Your task to perform on an android device: snooze an email in the gmail app Image 0: 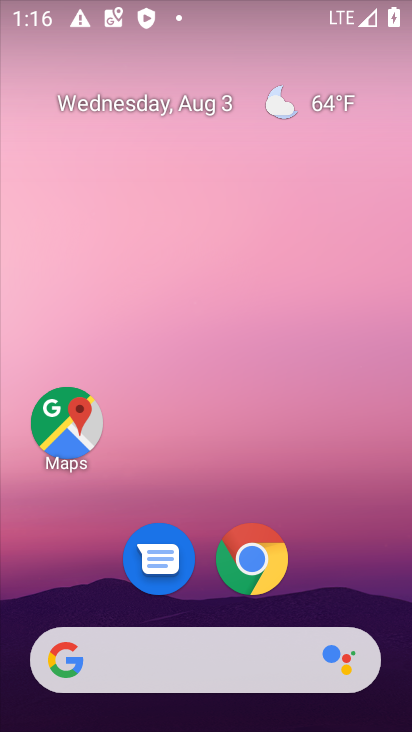
Step 0: drag from (205, 608) to (223, 16)
Your task to perform on an android device: snooze an email in the gmail app Image 1: 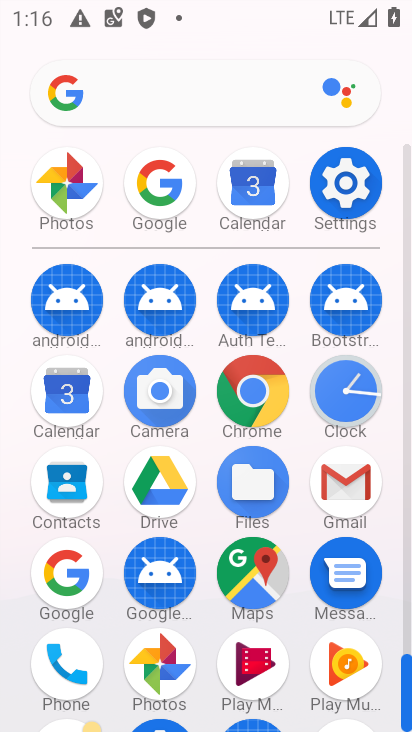
Step 1: click (344, 488)
Your task to perform on an android device: snooze an email in the gmail app Image 2: 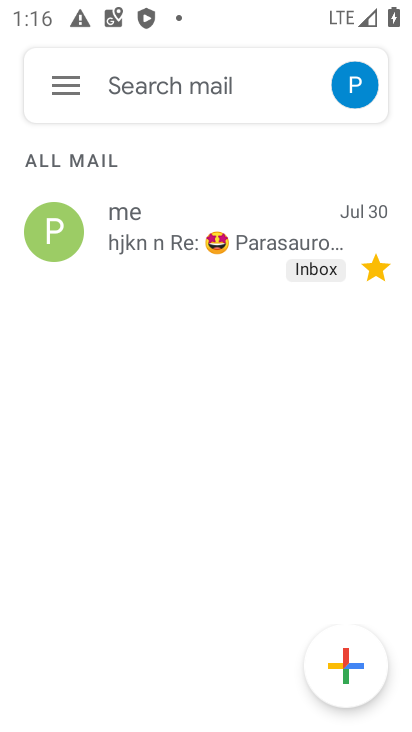
Step 2: click (129, 238)
Your task to perform on an android device: snooze an email in the gmail app Image 3: 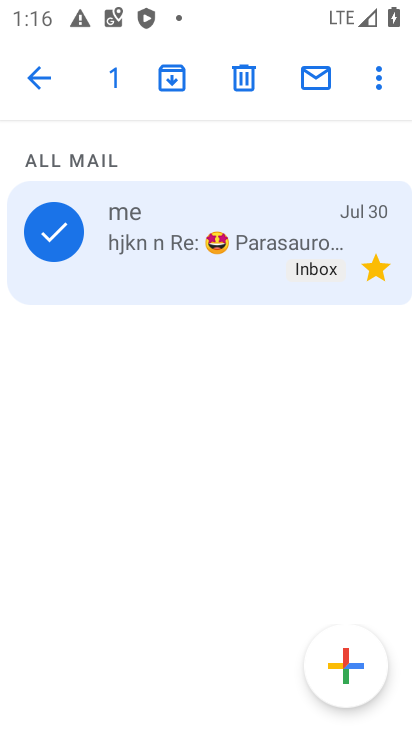
Step 3: click (378, 83)
Your task to perform on an android device: snooze an email in the gmail app Image 4: 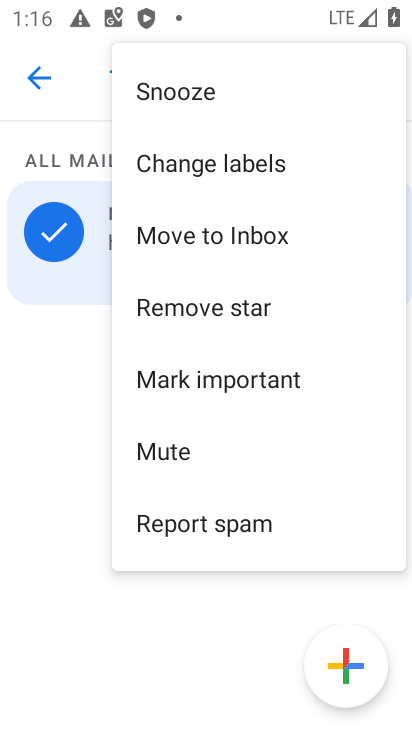
Step 4: click (201, 94)
Your task to perform on an android device: snooze an email in the gmail app Image 5: 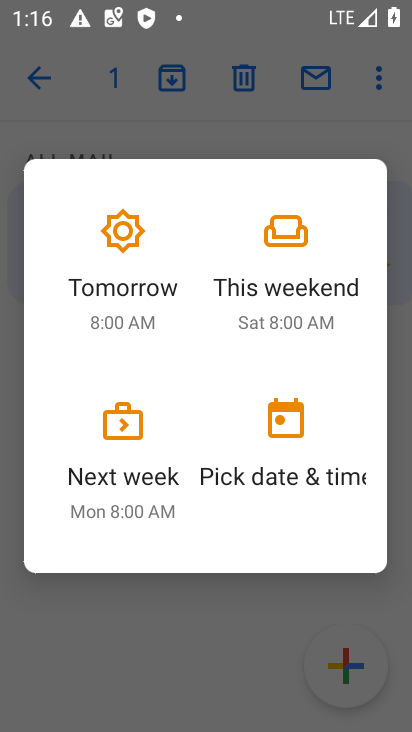
Step 5: click (138, 271)
Your task to perform on an android device: snooze an email in the gmail app Image 6: 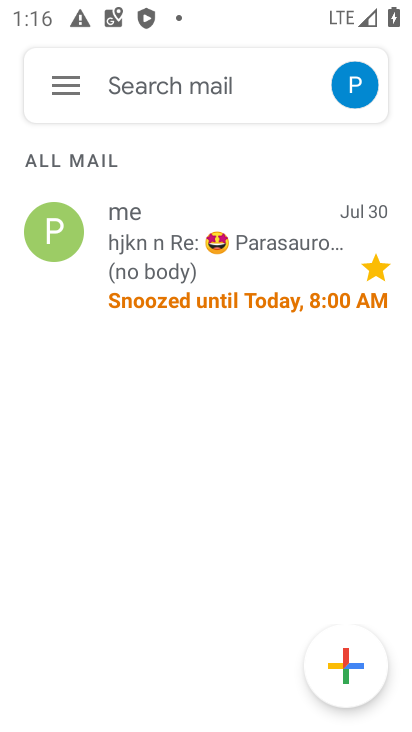
Step 6: task complete